Your task to perform on an android device: Do I have any events this weekend? Image 0: 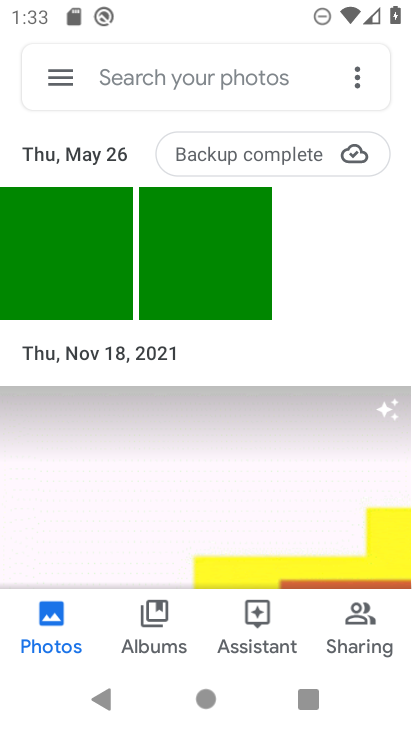
Step 0: press home button
Your task to perform on an android device: Do I have any events this weekend? Image 1: 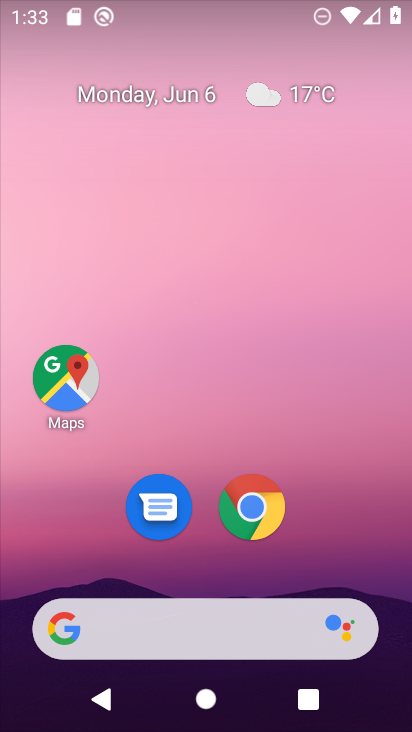
Step 1: drag from (292, 676) to (286, 92)
Your task to perform on an android device: Do I have any events this weekend? Image 2: 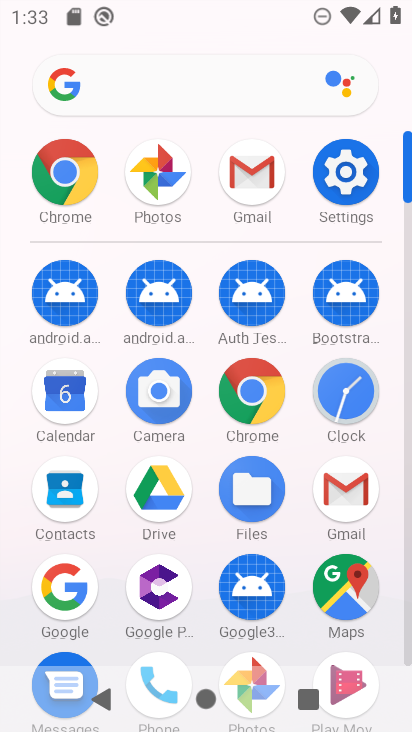
Step 2: click (56, 384)
Your task to perform on an android device: Do I have any events this weekend? Image 3: 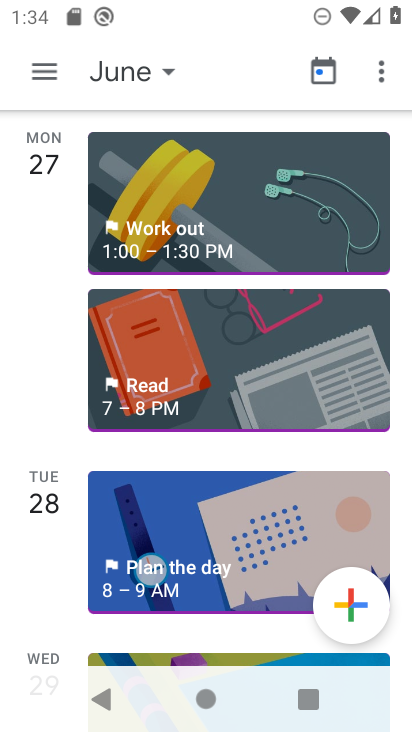
Step 3: press home button
Your task to perform on an android device: Do I have any events this weekend? Image 4: 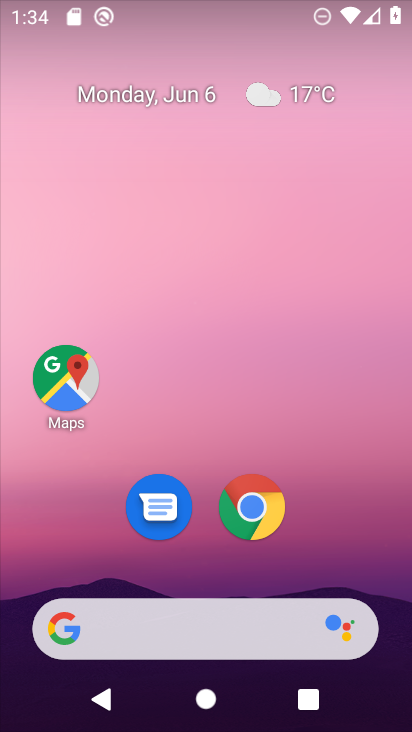
Step 4: drag from (242, 644) to (227, 111)
Your task to perform on an android device: Do I have any events this weekend? Image 5: 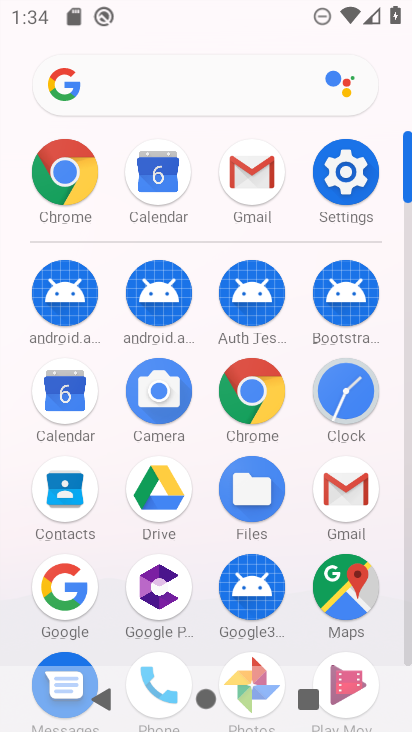
Step 5: click (79, 405)
Your task to perform on an android device: Do I have any events this weekend? Image 6: 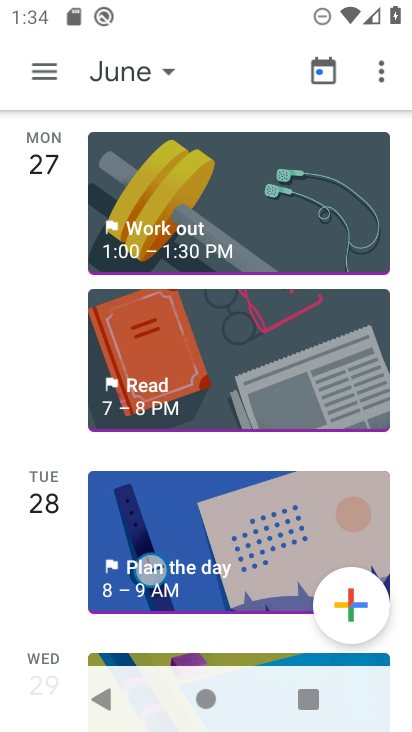
Step 6: task complete